Your task to perform on an android device: open wifi settings Image 0: 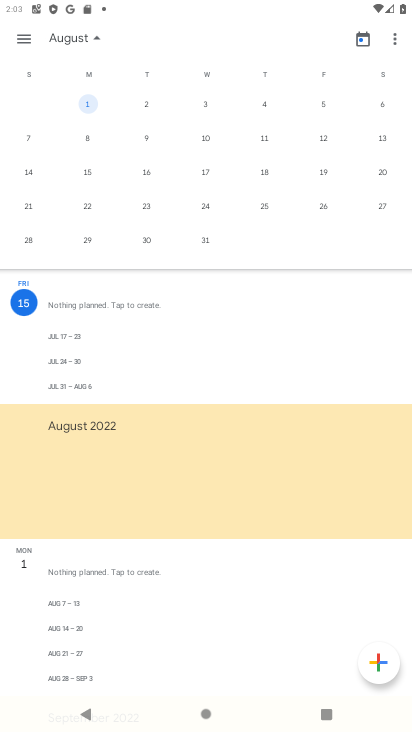
Step 0: press home button
Your task to perform on an android device: open wifi settings Image 1: 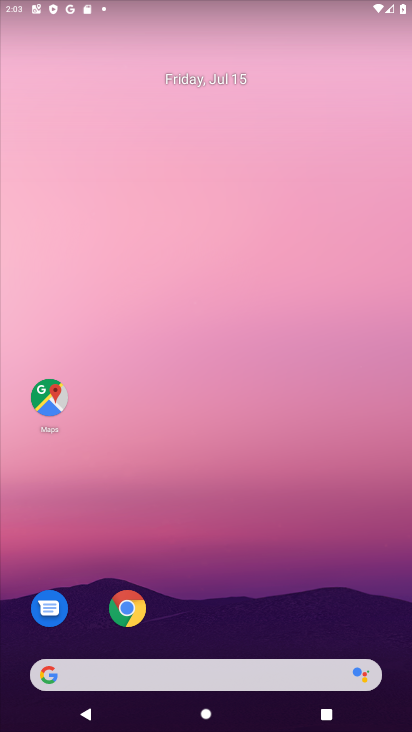
Step 1: drag from (262, 702) to (276, 63)
Your task to perform on an android device: open wifi settings Image 2: 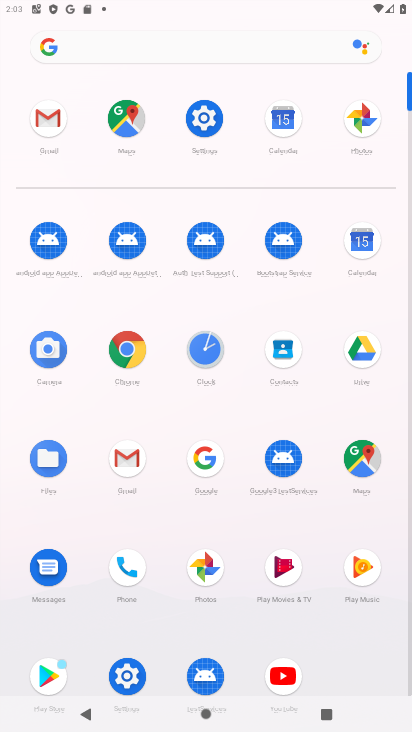
Step 2: click (200, 124)
Your task to perform on an android device: open wifi settings Image 3: 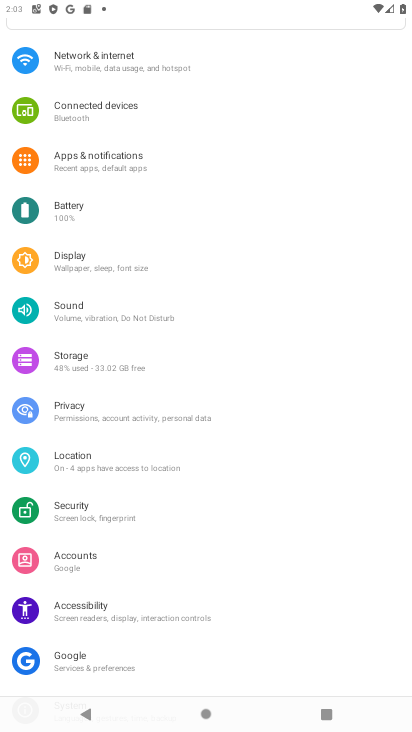
Step 3: click (187, 65)
Your task to perform on an android device: open wifi settings Image 4: 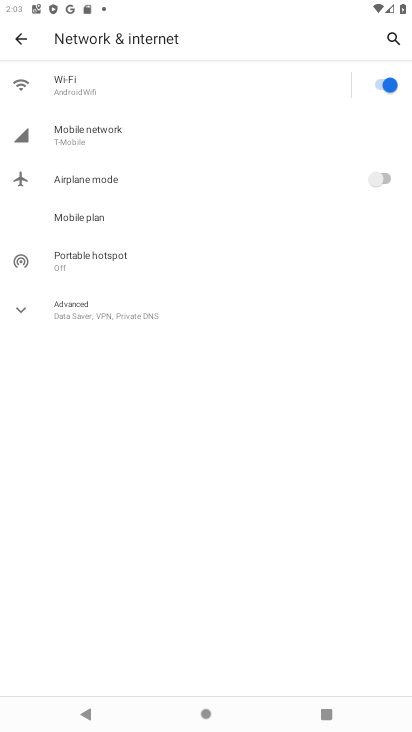
Step 4: click (147, 83)
Your task to perform on an android device: open wifi settings Image 5: 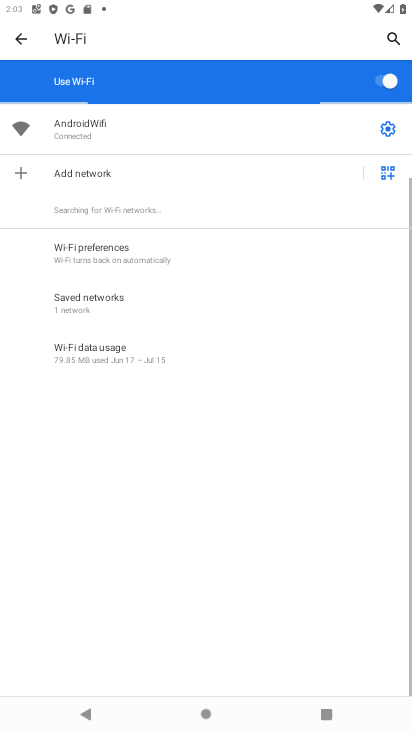
Step 5: click (388, 130)
Your task to perform on an android device: open wifi settings Image 6: 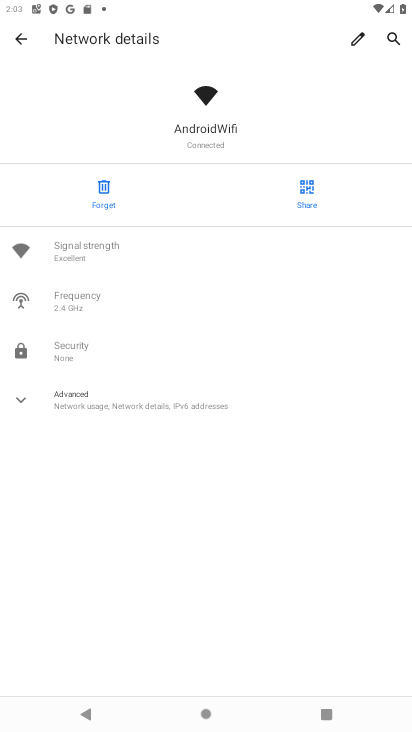
Step 6: task complete